Your task to perform on an android device: Go to notification settings Image 0: 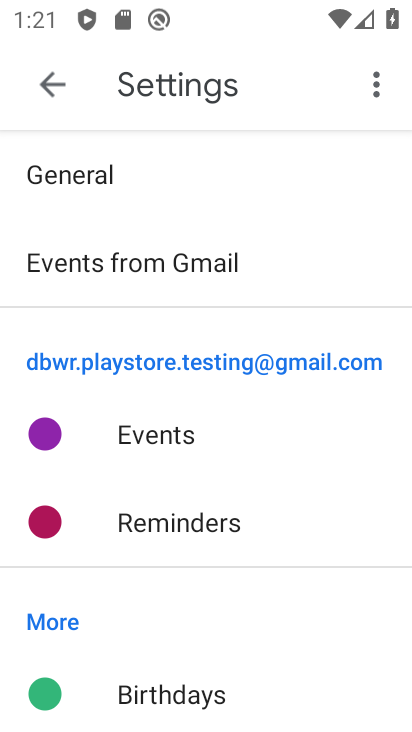
Step 0: click (53, 85)
Your task to perform on an android device: Go to notification settings Image 1: 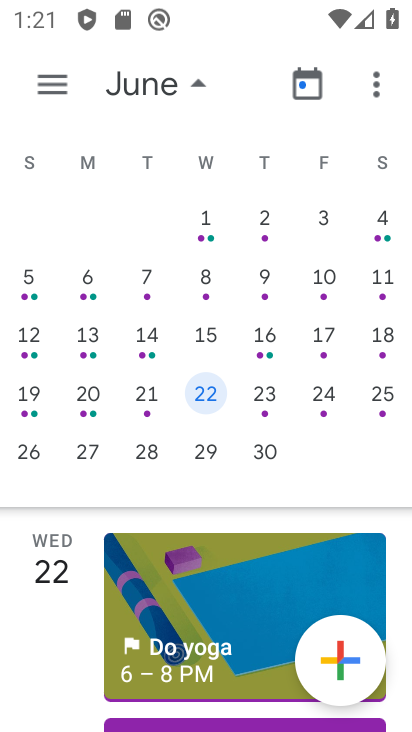
Step 1: press back button
Your task to perform on an android device: Go to notification settings Image 2: 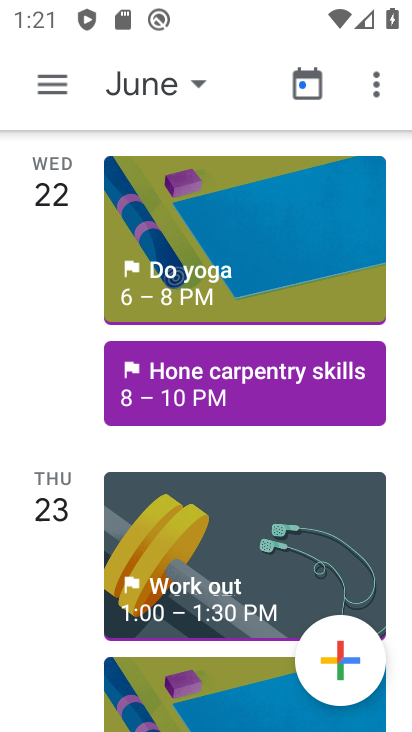
Step 2: press home button
Your task to perform on an android device: Go to notification settings Image 3: 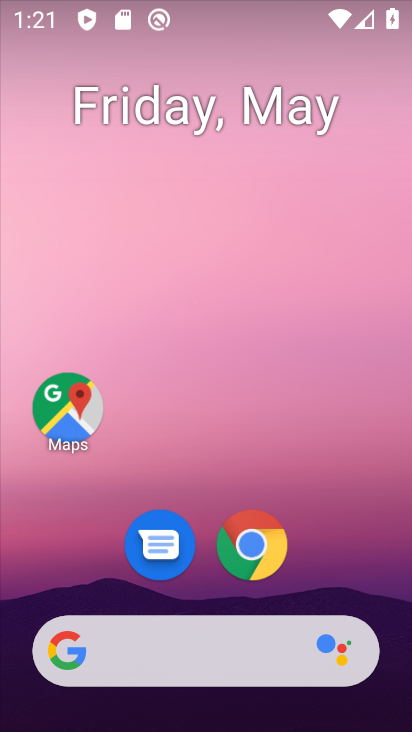
Step 3: drag from (274, 666) to (178, 198)
Your task to perform on an android device: Go to notification settings Image 4: 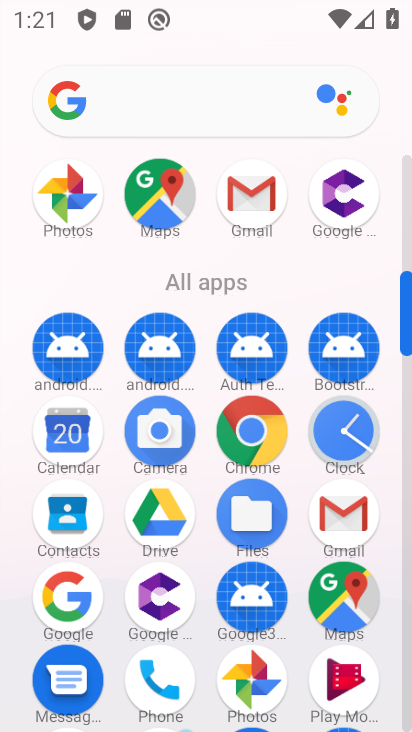
Step 4: drag from (206, 592) to (172, 71)
Your task to perform on an android device: Go to notification settings Image 5: 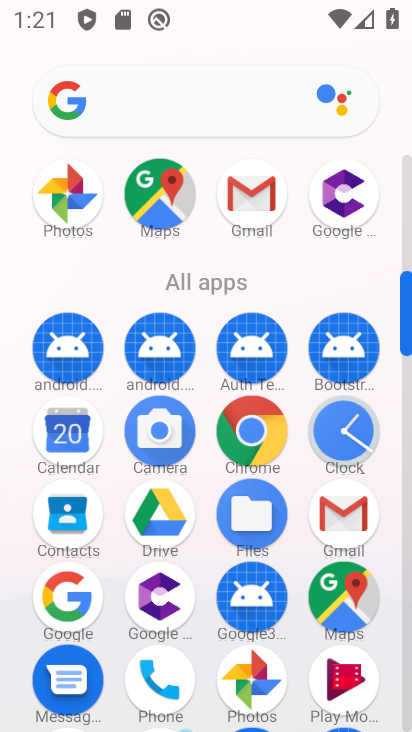
Step 5: drag from (227, 421) to (206, 94)
Your task to perform on an android device: Go to notification settings Image 6: 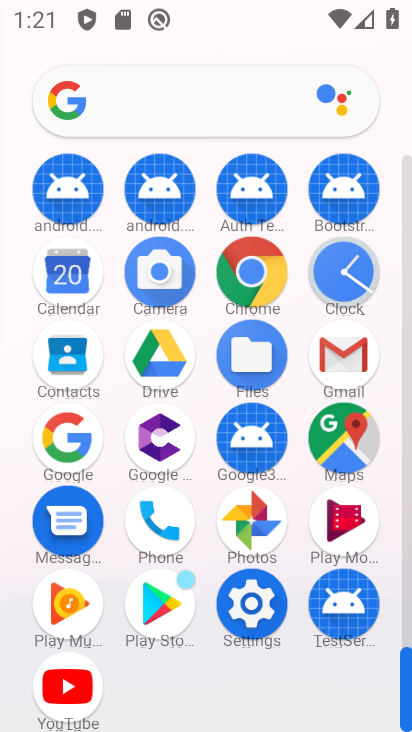
Step 6: click (251, 586)
Your task to perform on an android device: Go to notification settings Image 7: 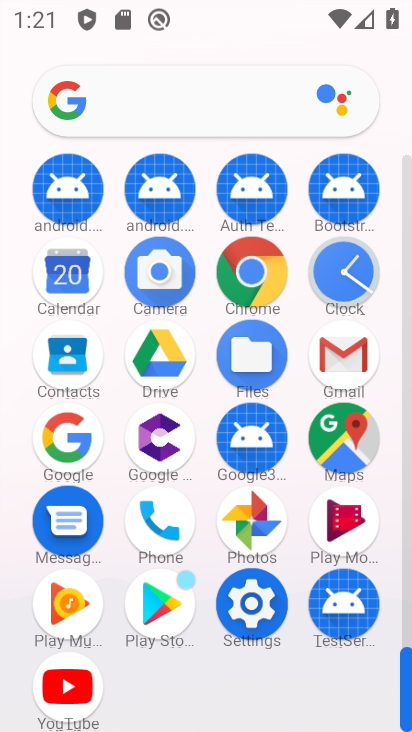
Step 7: click (255, 604)
Your task to perform on an android device: Go to notification settings Image 8: 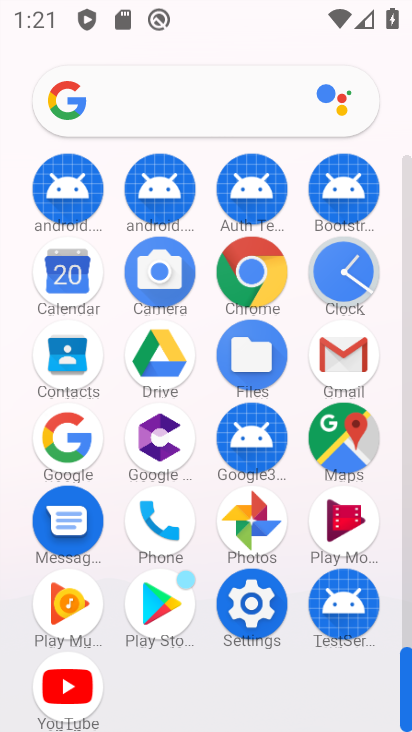
Step 8: click (255, 604)
Your task to perform on an android device: Go to notification settings Image 9: 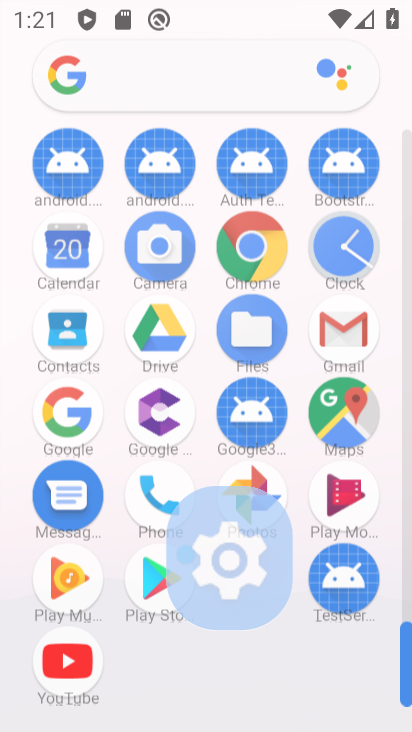
Step 9: click (255, 604)
Your task to perform on an android device: Go to notification settings Image 10: 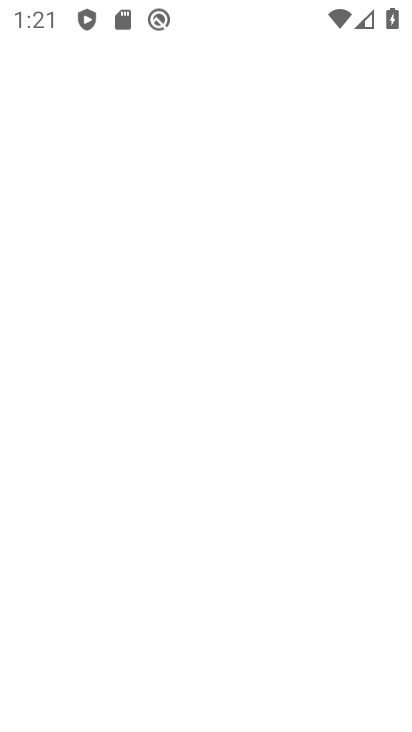
Step 10: click (255, 604)
Your task to perform on an android device: Go to notification settings Image 11: 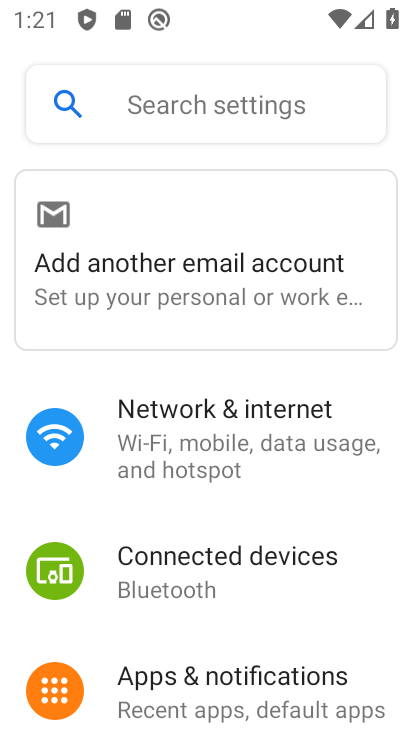
Step 11: drag from (244, 668) to (245, 702)
Your task to perform on an android device: Go to notification settings Image 12: 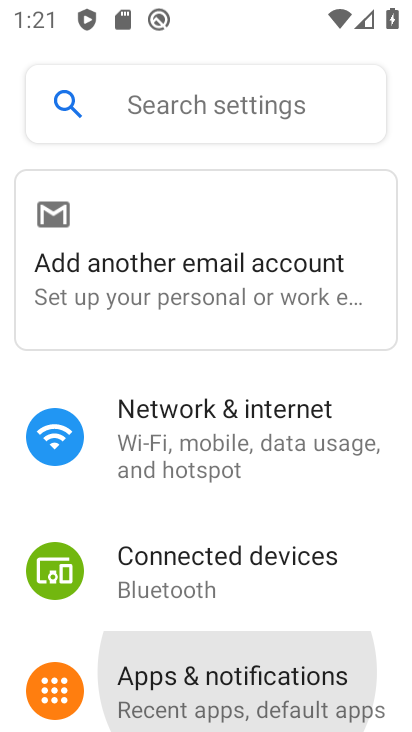
Step 12: click (249, 707)
Your task to perform on an android device: Go to notification settings Image 13: 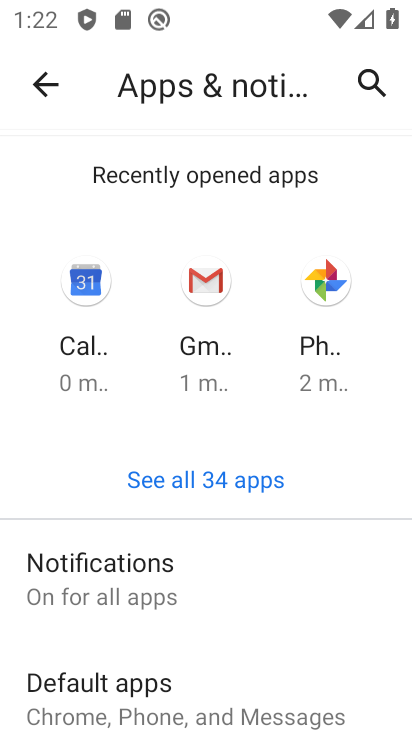
Step 13: click (83, 597)
Your task to perform on an android device: Go to notification settings Image 14: 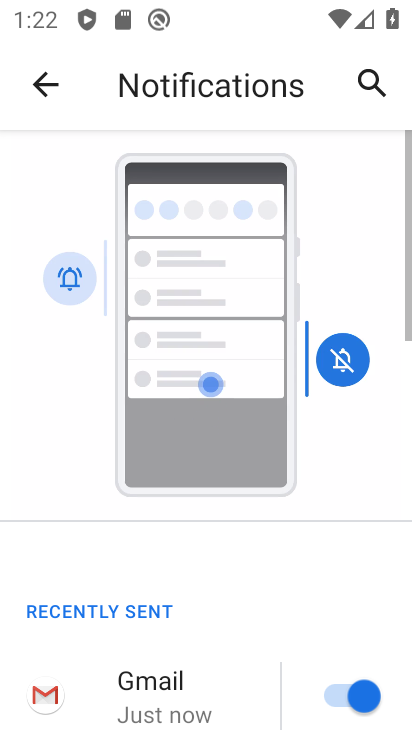
Step 14: click (120, 590)
Your task to perform on an android device: Go to notification settings Image 15: 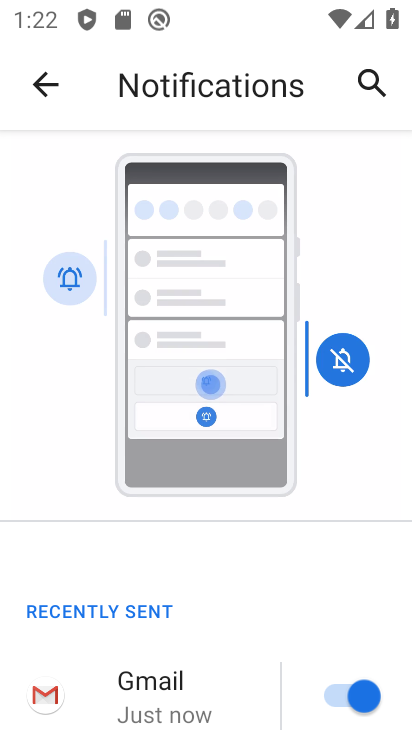
Step 15: task complete